Your task to perform on an android device: Is it going to rain this weekend? Image 0: 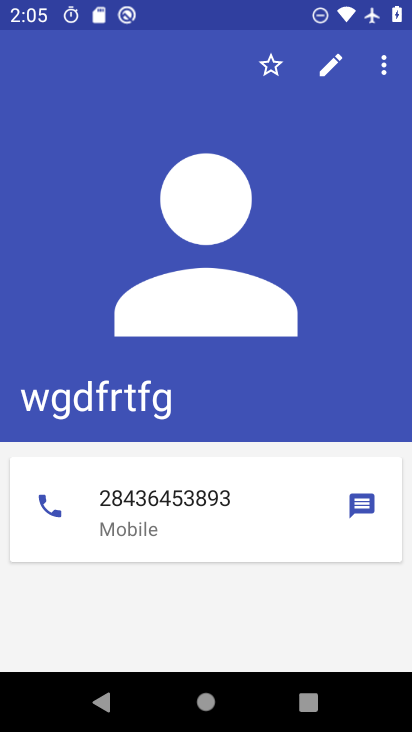
Step 0: press home button
Your task to perform on an android device: Is it going to rain this weekend? Image 1: 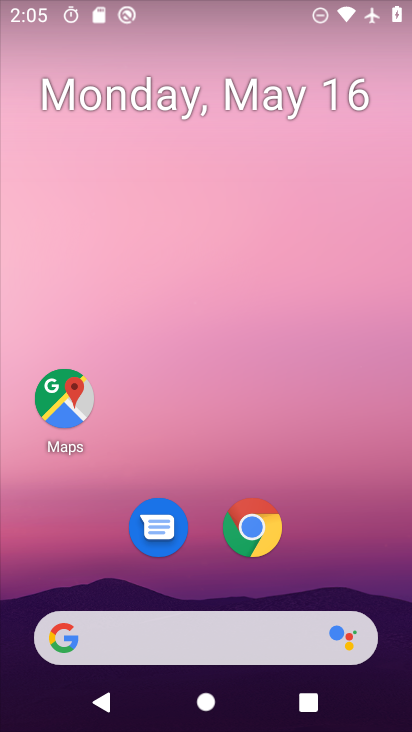
Step 1: click (73, 640)
Your task to perform on an android device: Is it going to rain this weekend? Image 2: 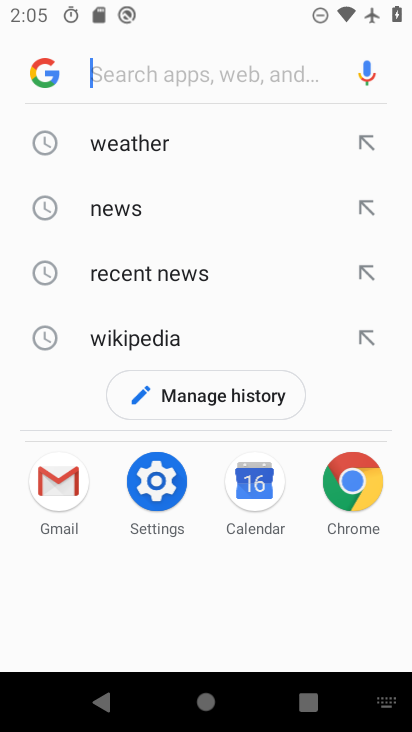
Step 2: click (152, 145)
Your task to perform on an android device: Is it going to rain this weekend? Image 3: 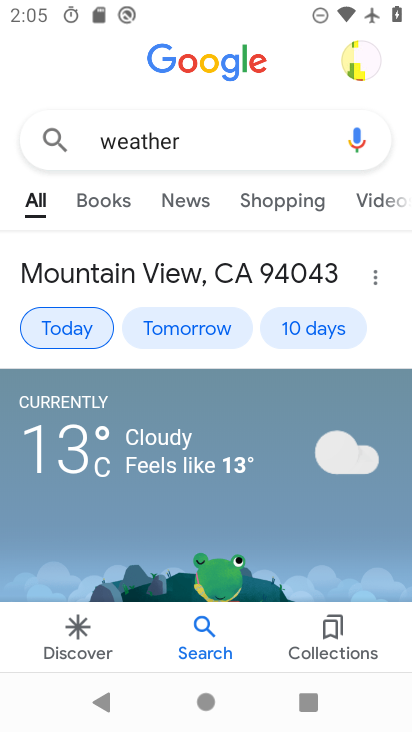
Step 3: click (314, 326)
Your task to perform on an android device: Is it going to rain this weekend? Image 4: 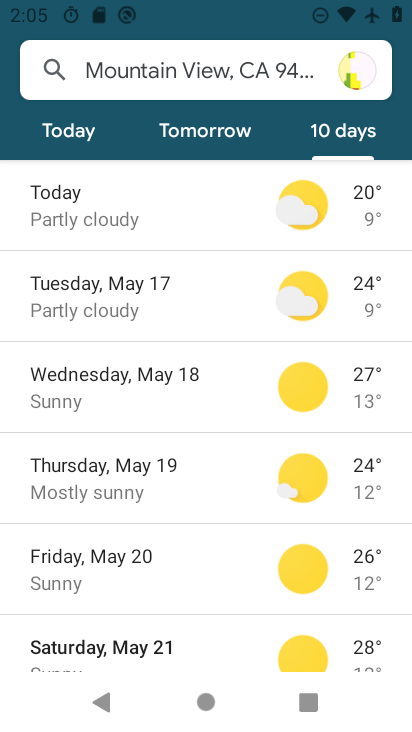
Step 4: task complete